Your task to perform on an android device: Go to Yahoo.com Image 0: 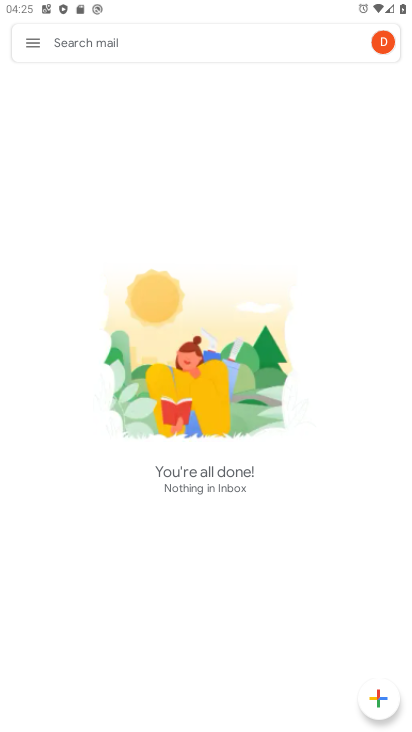
Step 0: press home button
Your task to perform on an android device: Go to Yahoo.com Image 1: 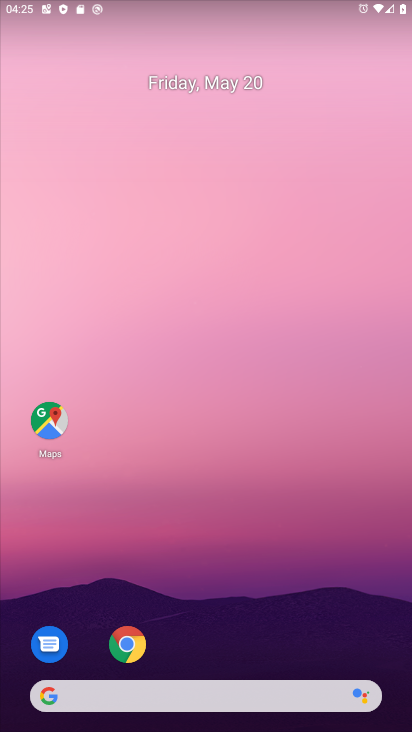
Step 1: click (122, 644)
Your task to perform on an android device: Go to Yahoo.com Image 2: 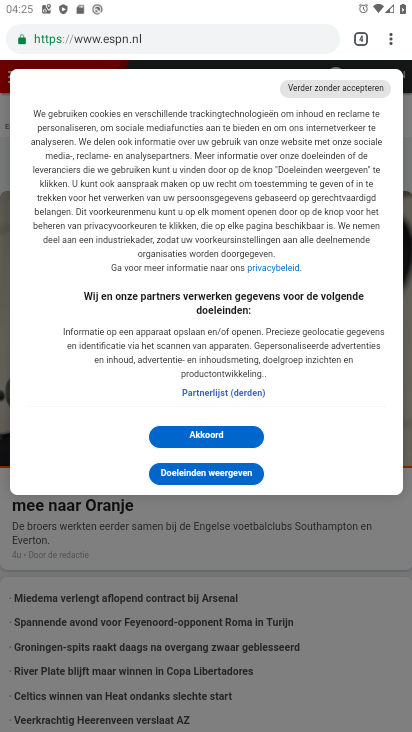
Step 2: click (197, 38)
Your task to perform on an android device: Go to Yahoo.com Image 3: 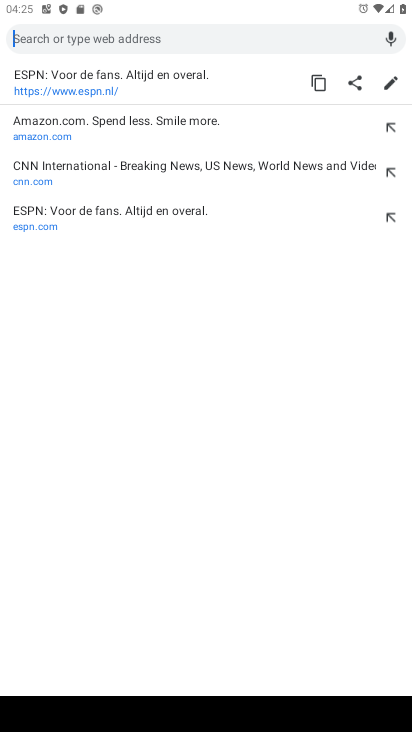
Step 3: type "yahoo.com"
Your task to perform on an android device: Go to Yahoo.com Image 4: 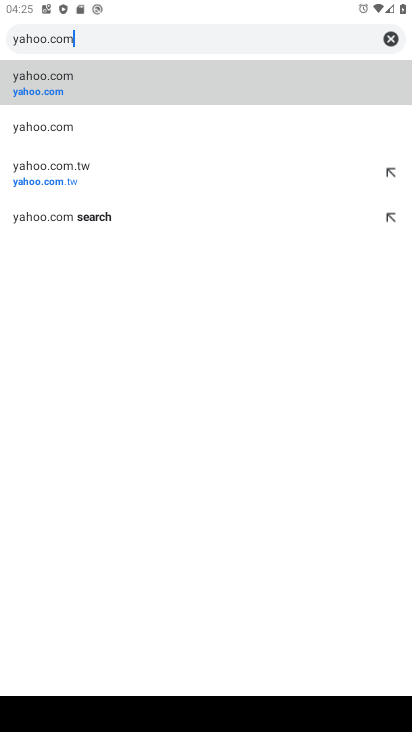
Step 4: click (160, 73)
Your task to perform on an android device: Go to Yahoo.com Image 5: 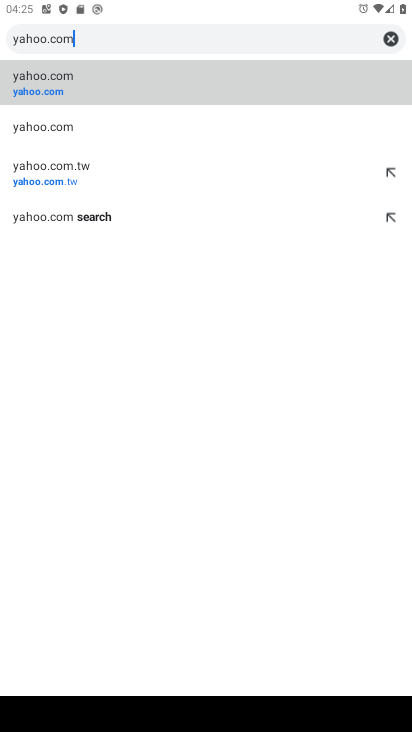
Step 5: click (160, 73)
Your task to perform on an android device: Go to Yahoo.com Image 6: 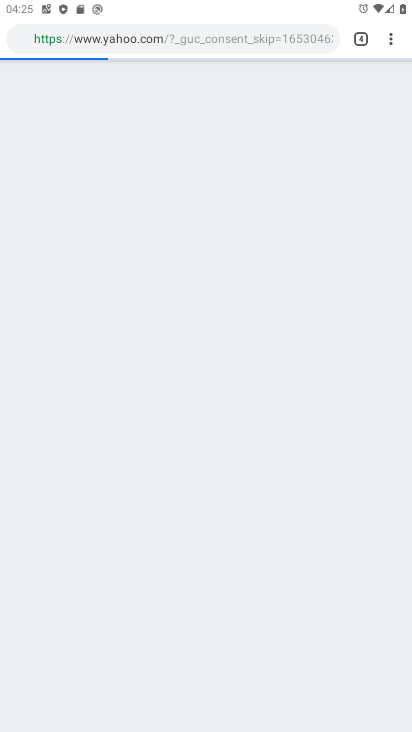
Step 6: task complete